Your task to perform on an android device: set the stopwatch Image 0: 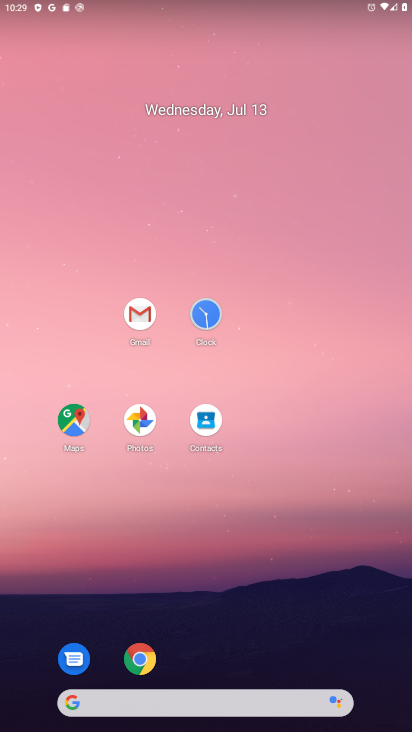
Step 0: click (192, 325)
Your task to perform on an android device: set the stopwatch Image 1: 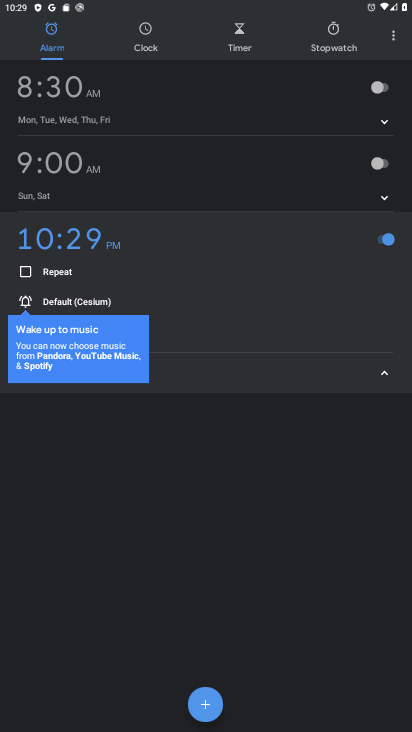
Step 1: click (337, 25)
Your task to perform on an android device: set the stopwatch Image 2: 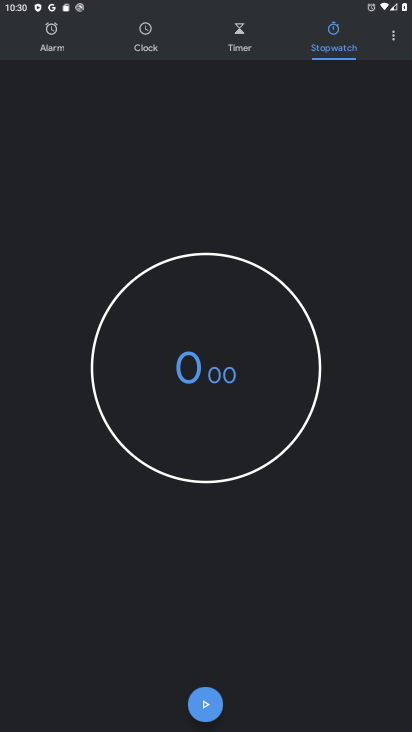
Step 2: click (209, 705)
Your task to perform on an android device: set the stopwatch Image 3: 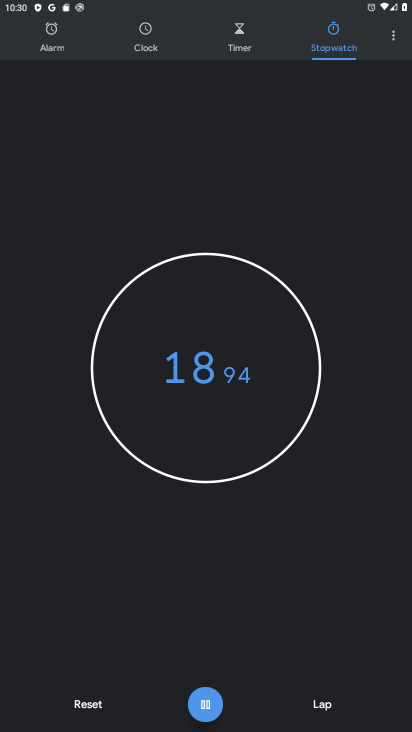
Step 3: task complete